Your task to perform on an android device: Is it going to rain today? Image 0: 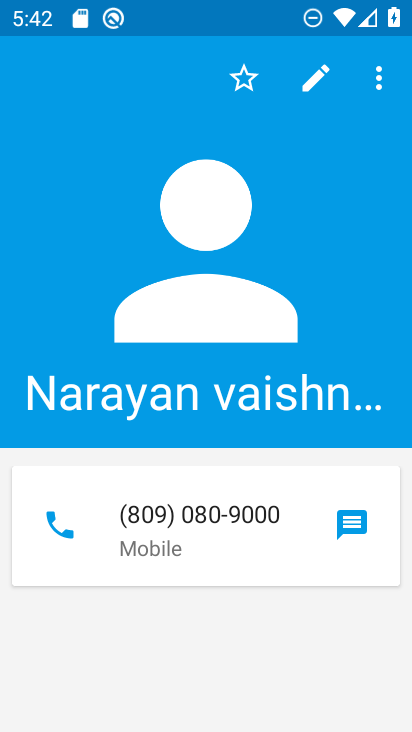
Step 0: press home button
Your task to perform on an android device: Is it going to rain today? Image 1: 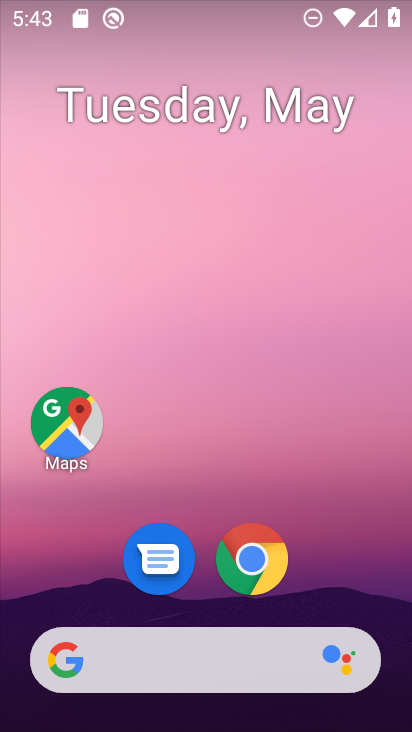
Step 1: click (185, 675)
Your task to perform on an android device: Is it going to rain today? Image 2: 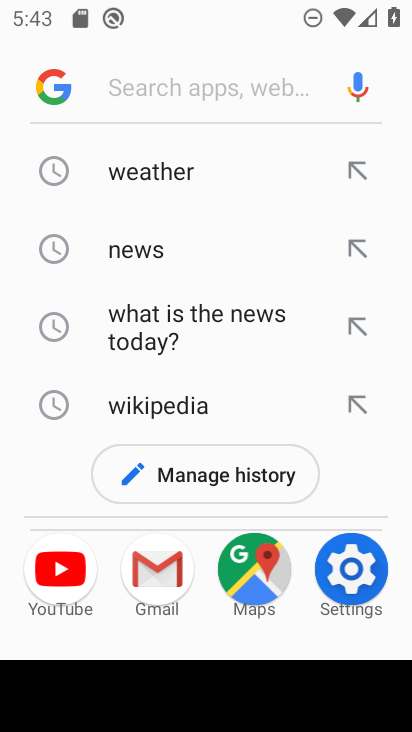
Step 2: click (160, 194)
Your task to perform on an android device: Is it going to rain today? Image 3: 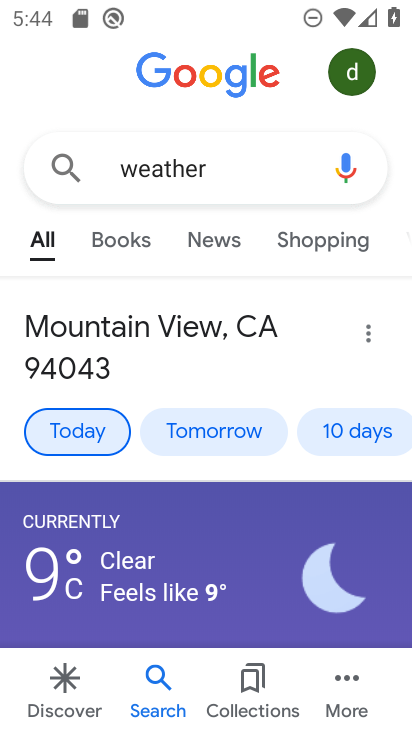
Step 3: task complete